Your task to perform on an android device: Show me the alarms in the clock app Image 0: 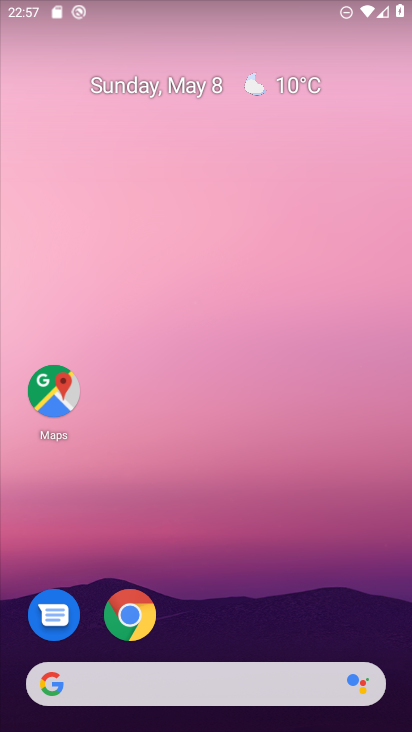
Step 0: drag from (299, 449) to (259, 105)
Your task to perform on an android device: Show me the alarms in the clock app Image 1: 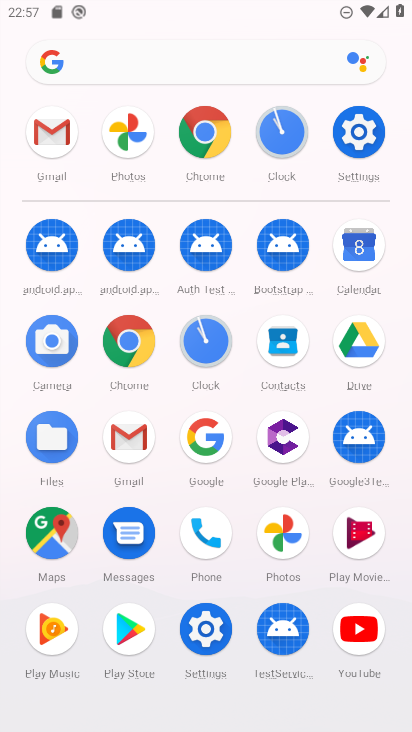
Step 1: click (207, 329)
Your task to perform on an android device: Show me the alarms in the clock app Image 2: 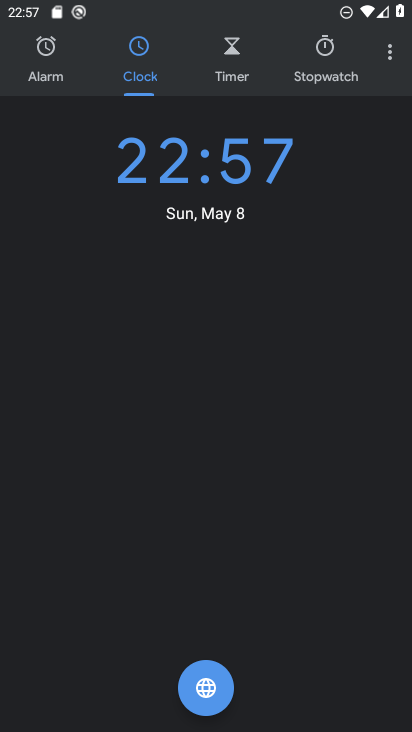
Step 2: click (49, 67)
Your task to perform on an android device: Show me the alarms in the clock app Image 3: 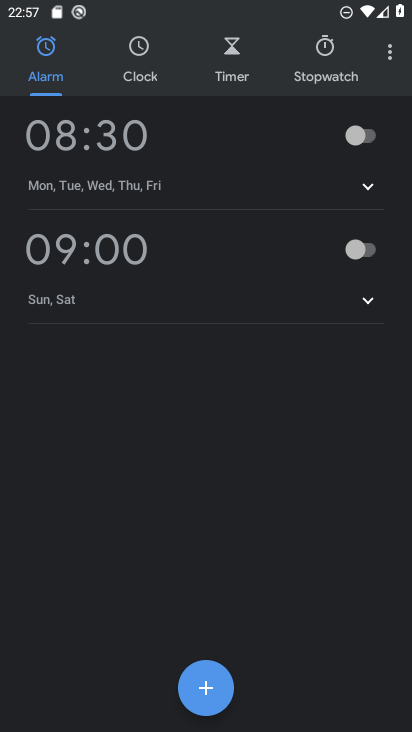
Step 3: task complete